Your task to perform on an android device: open app "Facebook Lite" Image 0: 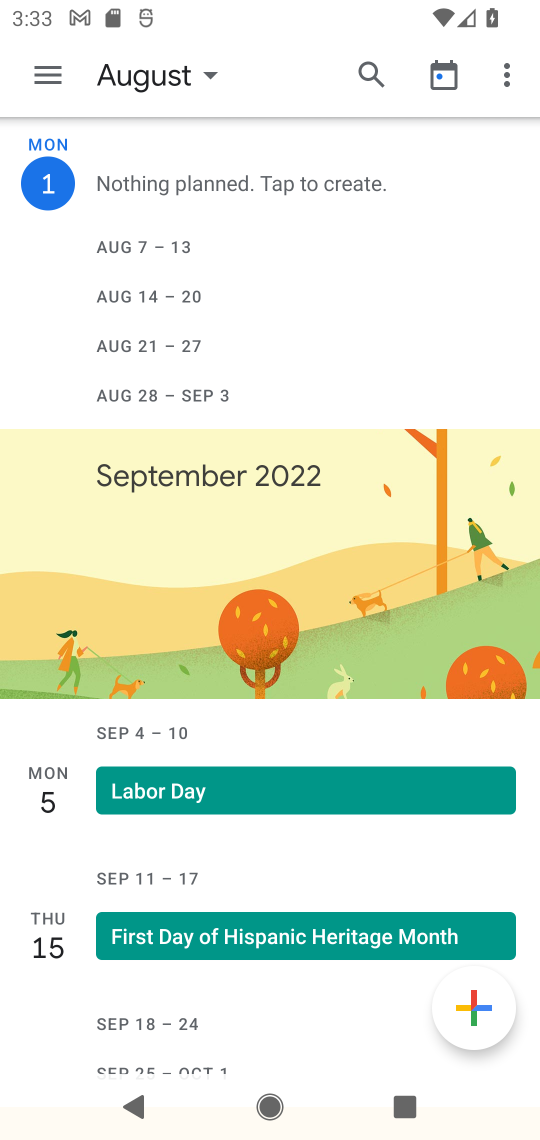
Step 0: press home button
Your task to perform on an android device: open app "Facebook Lite" Image 1: 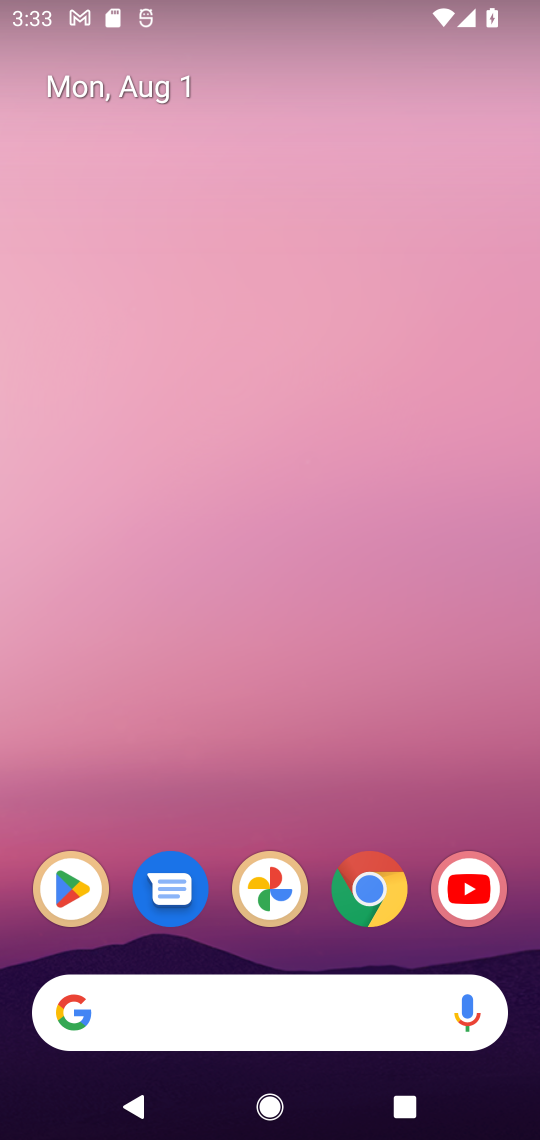
Step 1: click (78, 884)
Your task to perform on an android device: open app "Facebook Lite" Image 2: 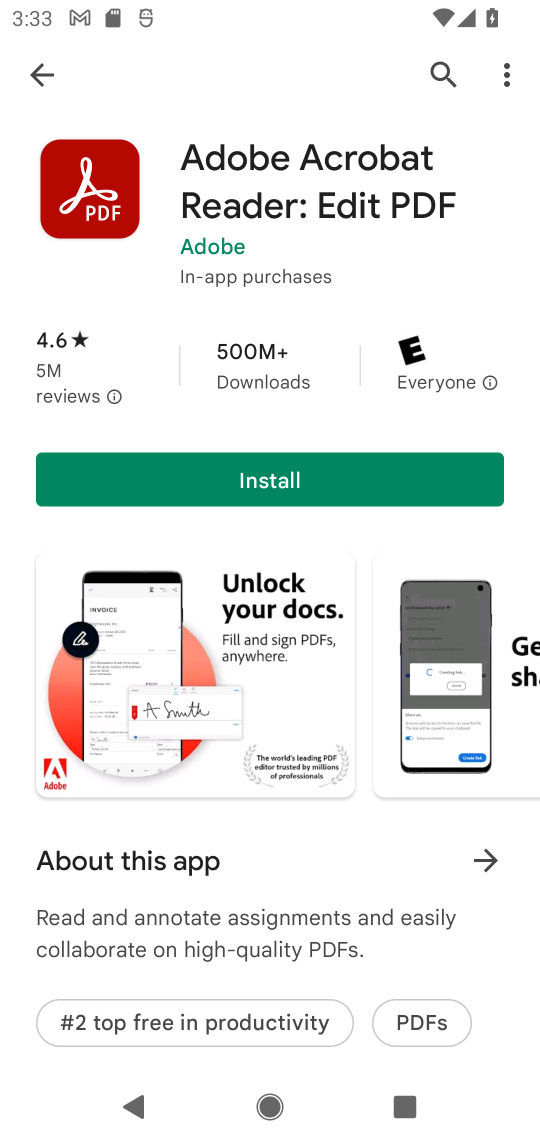
Step 2: click (437, 67)
Your task to perform on an android device: open app "Facebook Lite" Image 3: 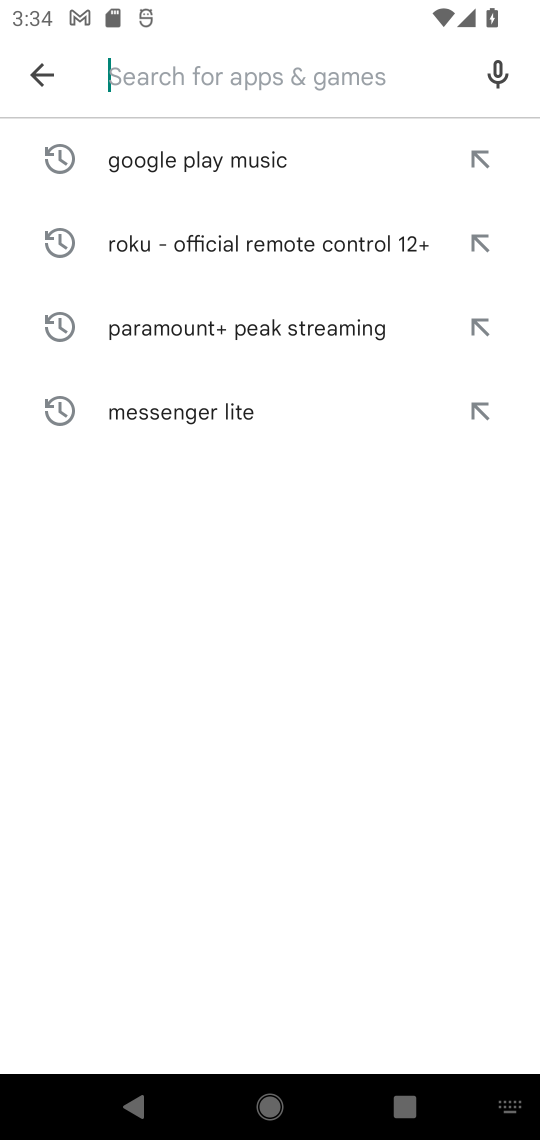
Step 3: type "Facebook Lite"
Your task to perform on an android device: open app "Facebook Lite" Image 4: 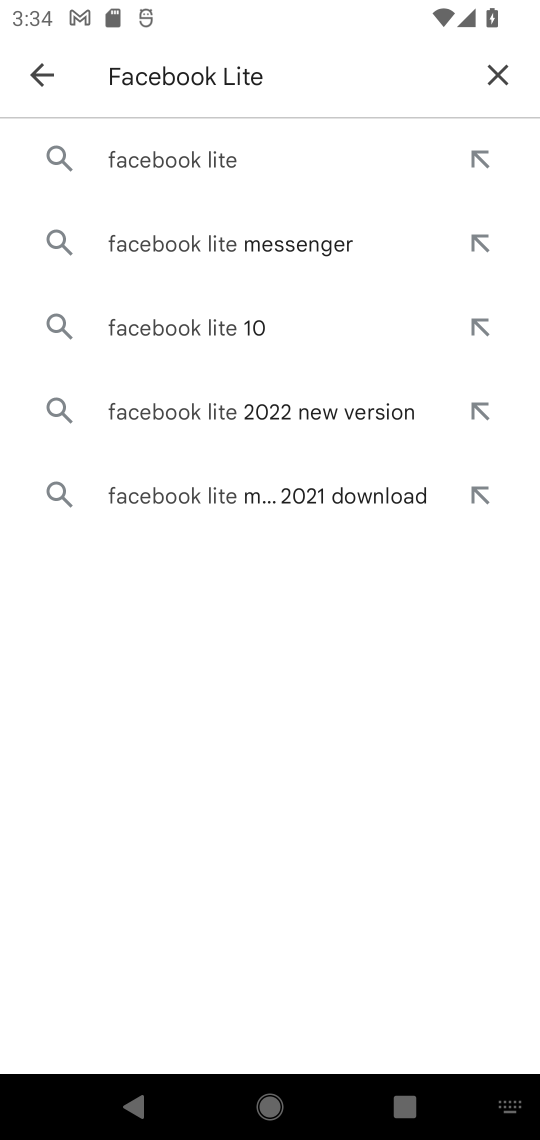
Step 4: click (187, 160)
Your task to perform on an android device: open app "Facebook Lite" Image 5: 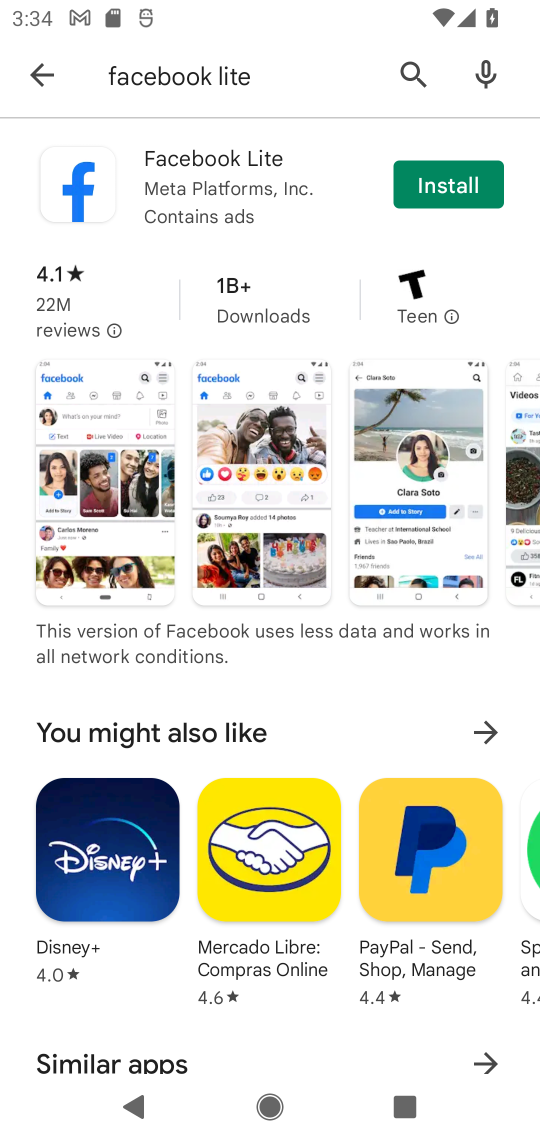
Step 5: task complete